Your task to perform on an android device: Do I have any events today? Image 0: 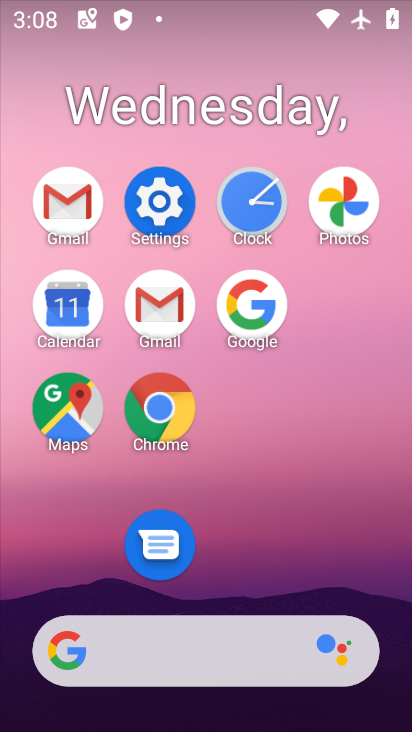
Step 0: click (77, 299)
Your task to perform on an android device: Do I have any events today? Image 1: 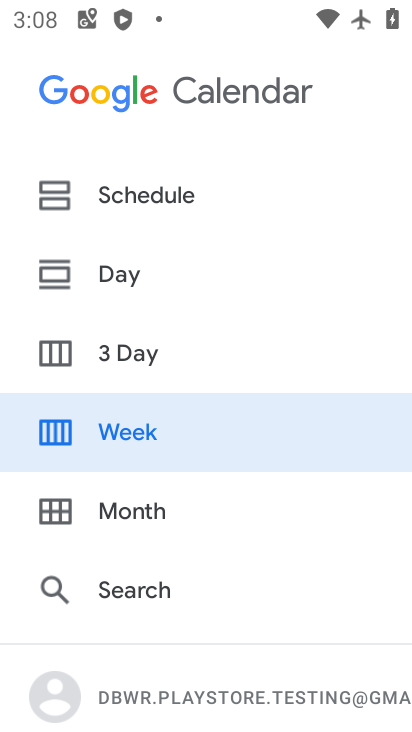
Step 1: click (118, 260)
Your task to perform on an android device: Do I have any events today? Image 2: 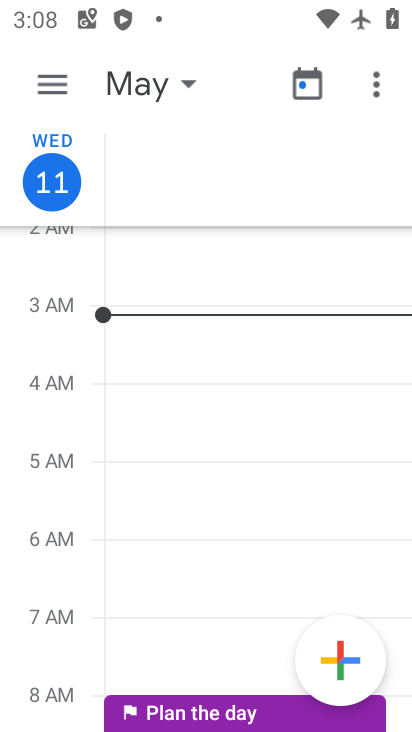
Step 2: task complete